Your task to perform on an android device: read, delete, or share a saved page in the chrome app Image 0: 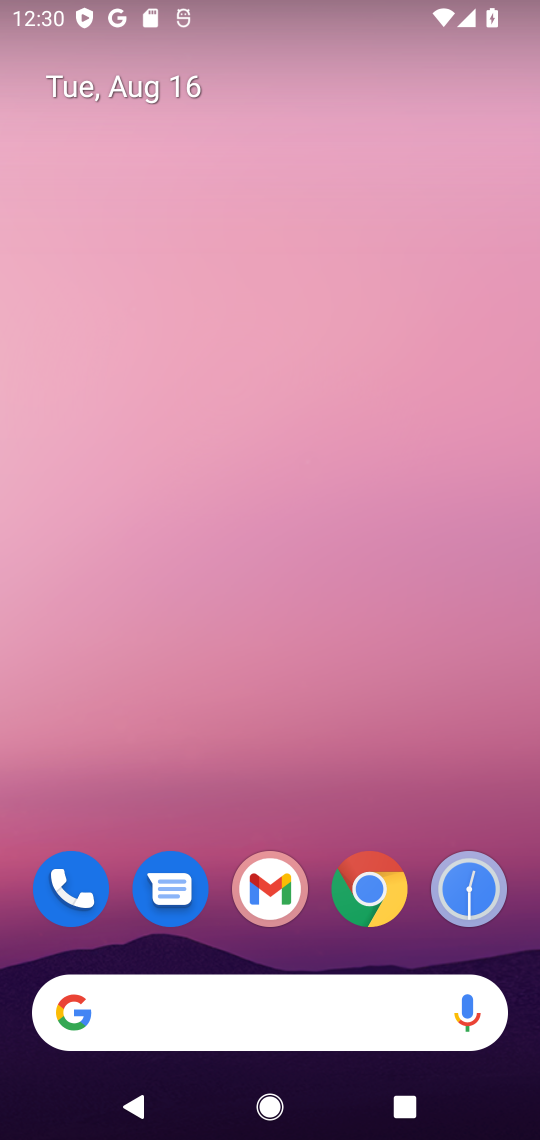
Step 0: drag from (361, 1003) to (198, 17)
Your task to perform on an android device: read, delete, or share a saved page in the chrome app Image 1: 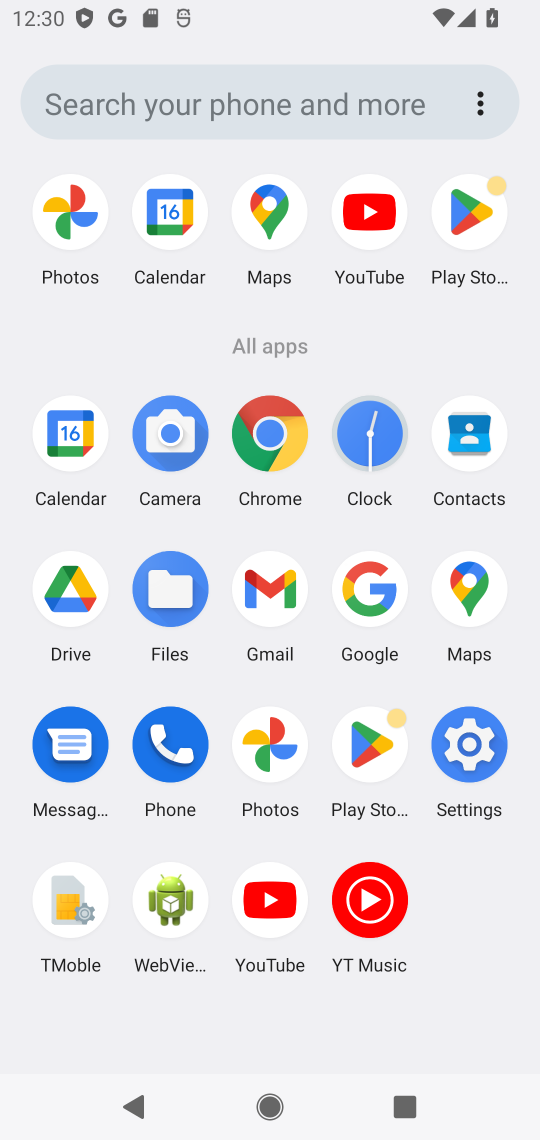
Step 1: click (276, 444)
Your task to perform on an android device: read, delete, or share a saved page in the chrome app Image 2: 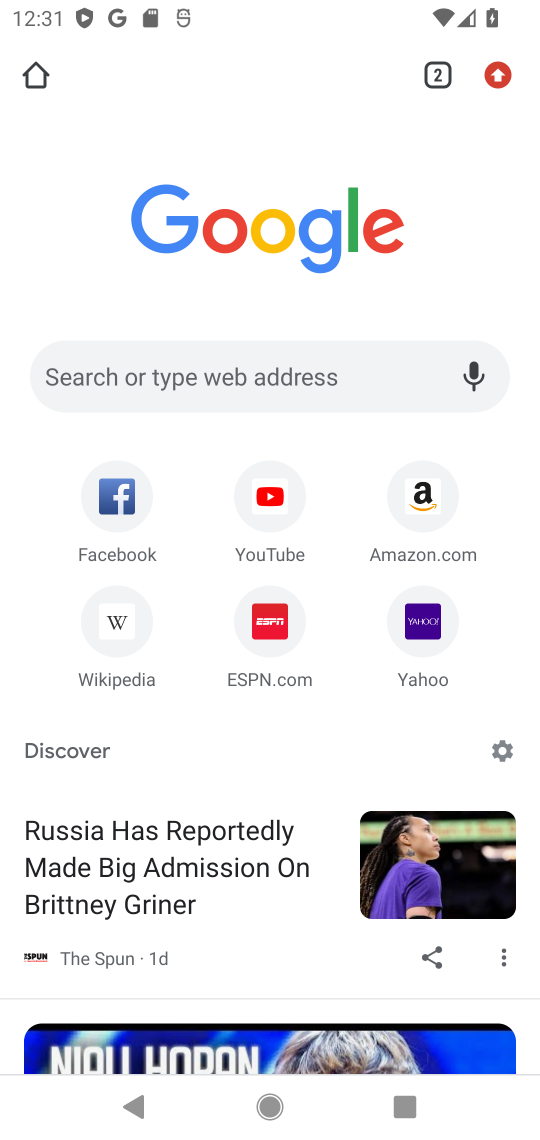
Step 2: task complete